Your task to perform on an android device: turn on showing notifications on the lock screen Image 0: 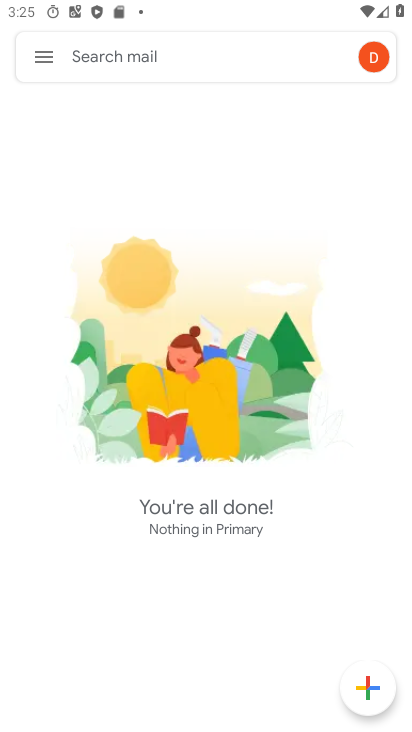
Step 0: press home button
Your task to perform on an android device: turn on showing notifications on the lock screen Image 1: 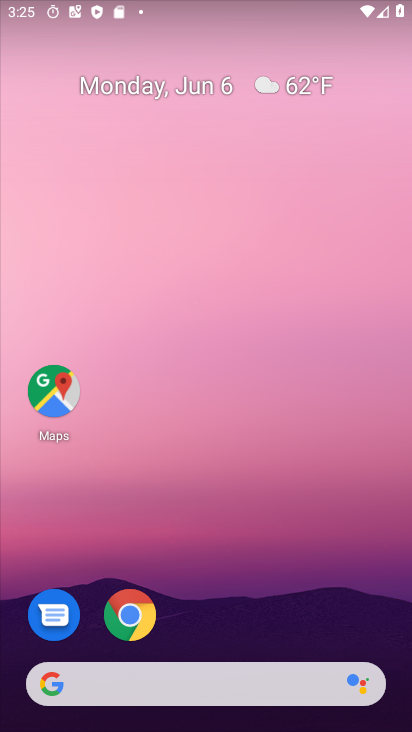
Step 1: drag from (291, 666) to (272, 6)
Your task to perform on an android device: turn on showing notifications on the lock screen Image 2: 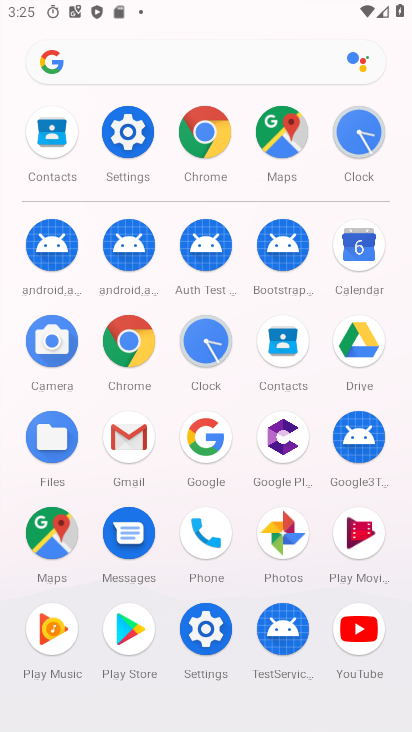
Step 2: click (121, 132)
Your task to perform on an android device: turn on showing notifications on the lock screen Image 3: 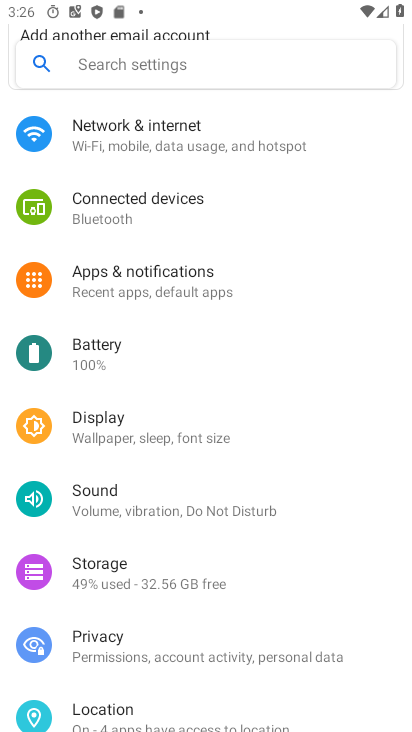
Step 3: click (194, 275)
Your task to perform on an android device: turn on showing notifications on the lock screen Image 4: 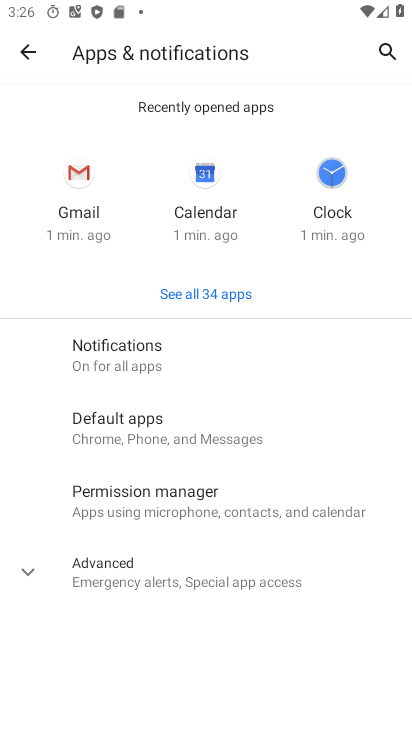
Step 4: click (138, 352)
Your task to perform on an android device: turn on showing notifications on the lock screen Image 5: 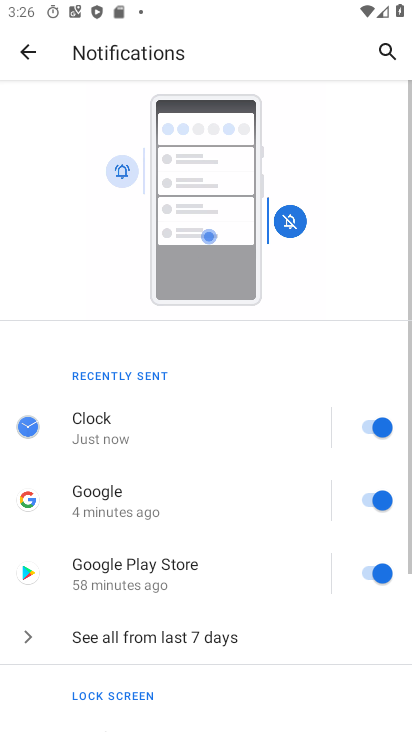
Step 5: drag from (189, 647) to (178, 172)
Your task to perform on an android device: turn on showing notifications on the lock screen Image 6: 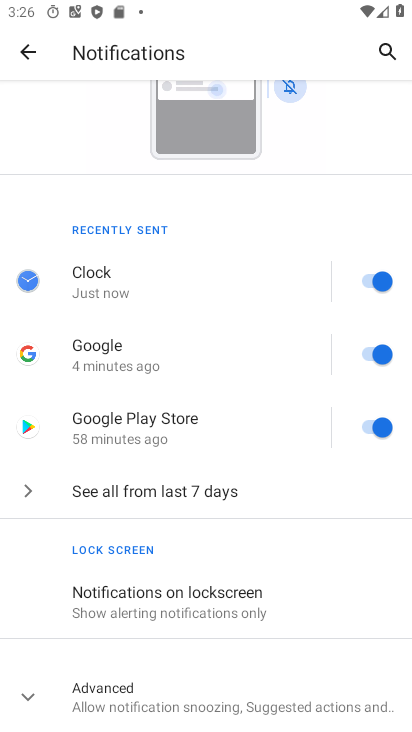
Step 6: click (137, 611)
Your task to perform on an android device: turn on showing notifications on the lock screen Image 7: 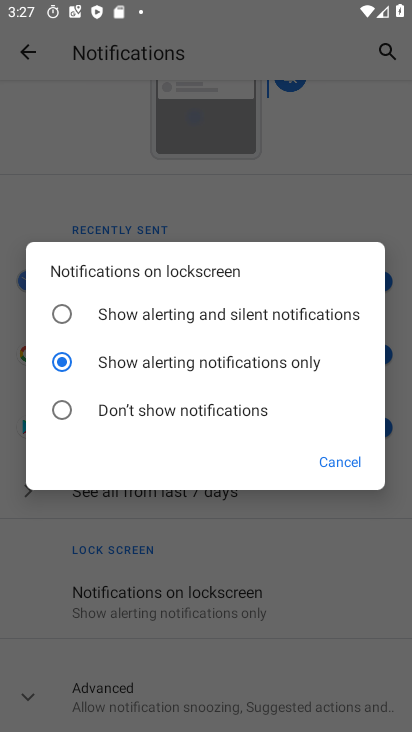
Step 7: click (226, 368)
Your task to perform on an android device: turn on showing notifications on the lock screen Image 8: 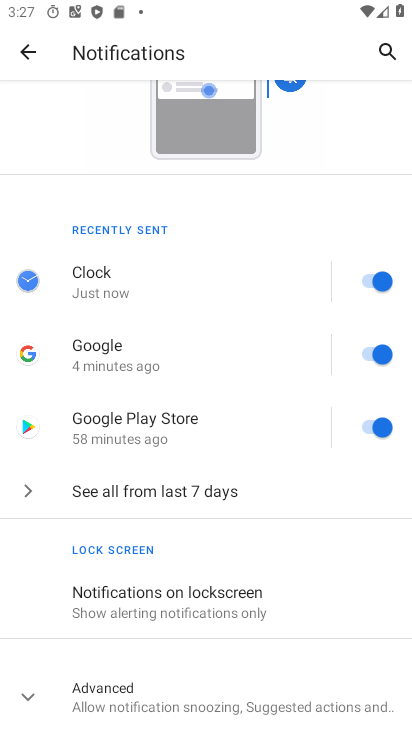
Step 8: task complete